Your task to perform on an android device: Open my contact list Image 0: 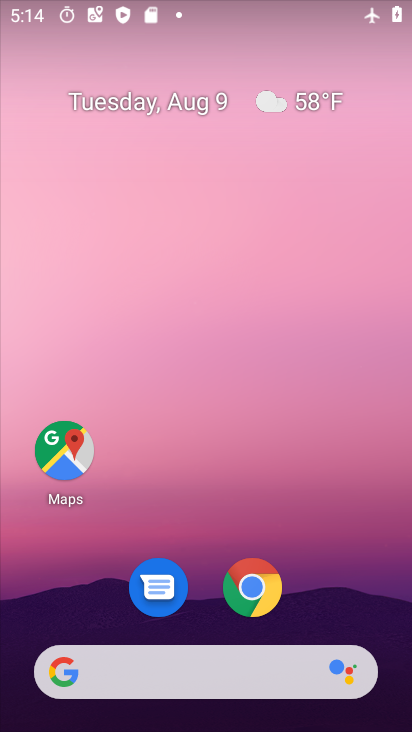
Step 0: drag from (207, 652) to (213, 218)
Your task to perform on an android device: Open my contact list Image 1: 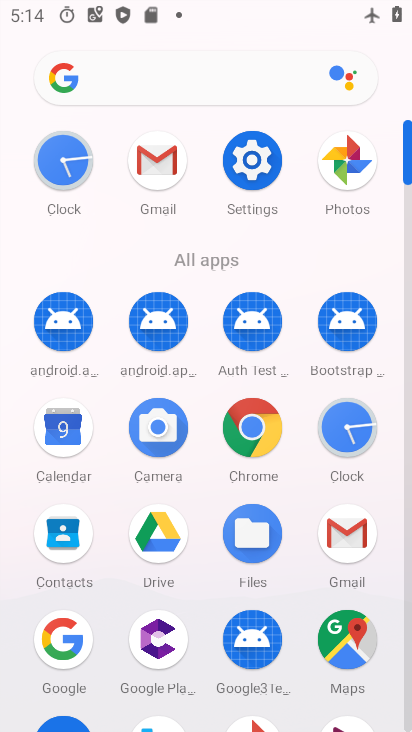
Step 1: click (68, 545)
Your task to perform on an android device: Open my contact list Image 2: 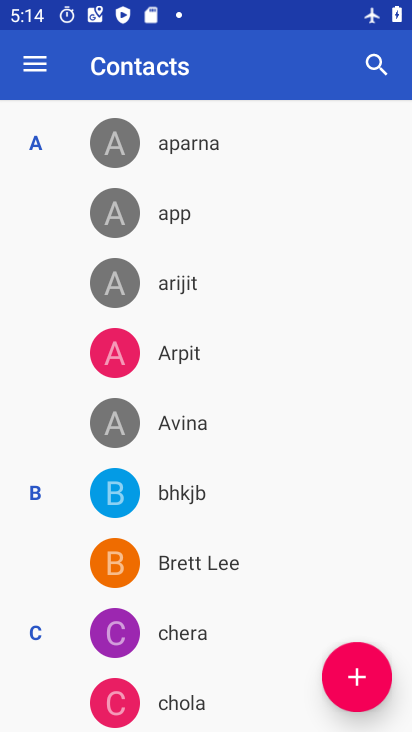
Step 2: task complete